Your task to perform on an android device: manage bookmarks in the chrome app Image 0: 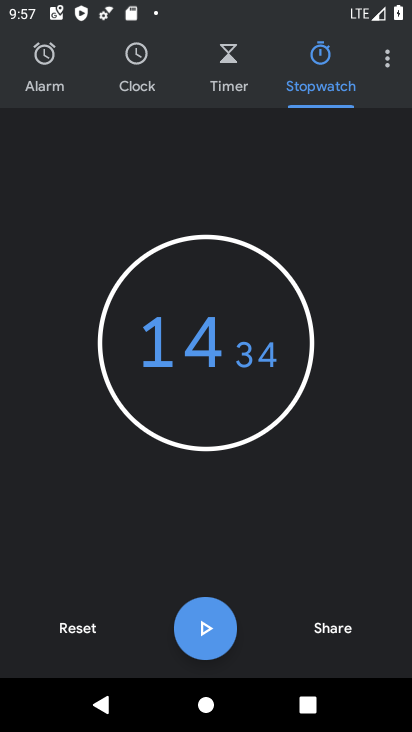
Step 0: press home button
Your task to perform on an android device: manage bookmarks in the chrome app Image 1: 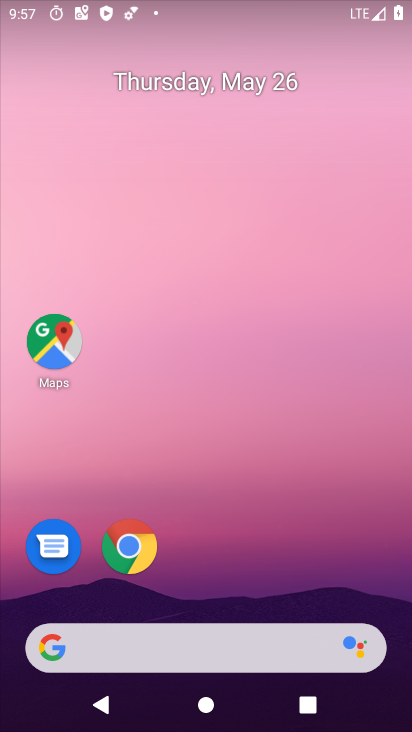
Step 1: drag from (372, 561) to (336, 188)
Your task to perform on an android device: manage bookmarks in the chrome app Image 2: 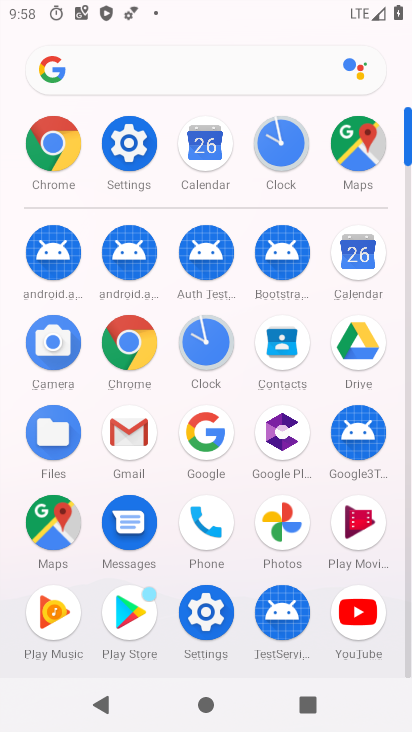
Step 2: click (125, 355)
Your task to perform on an android device: manage bookmarks in the chrome app Image 3: 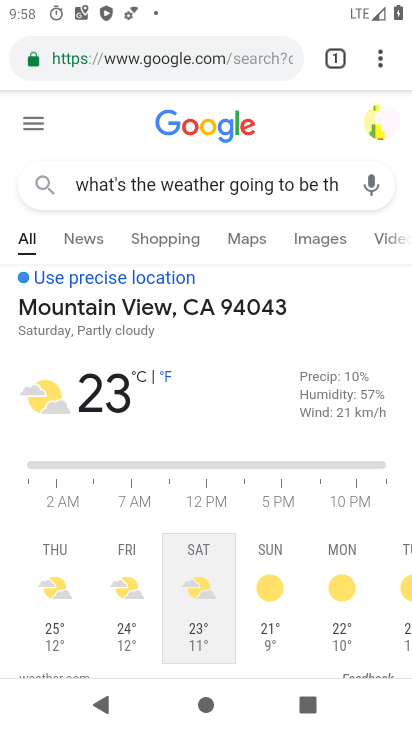
Step 3: drag from (385, 57) to (210, 217)
Your task to perform on an android device: manage bookmarks in the chrome app Image 4: 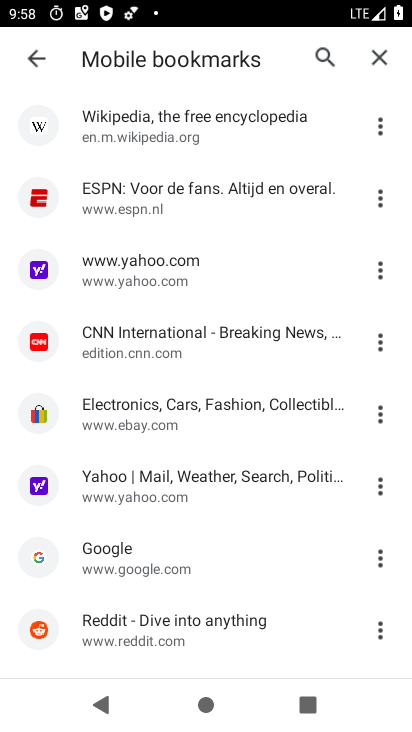
Step 4: click (382, 131)
Your task to perform on an android device: manage bookmarks in the chrome app Image 5: 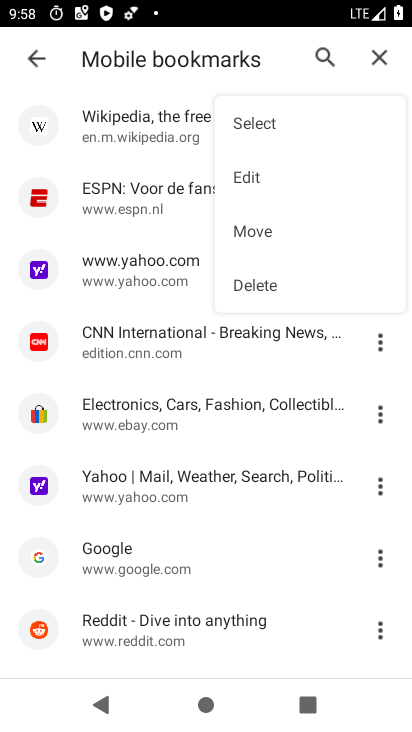
Step 5: click (244, 287)
Your task to perform on an android device: manage bookmarks in the chrome app Image 6: 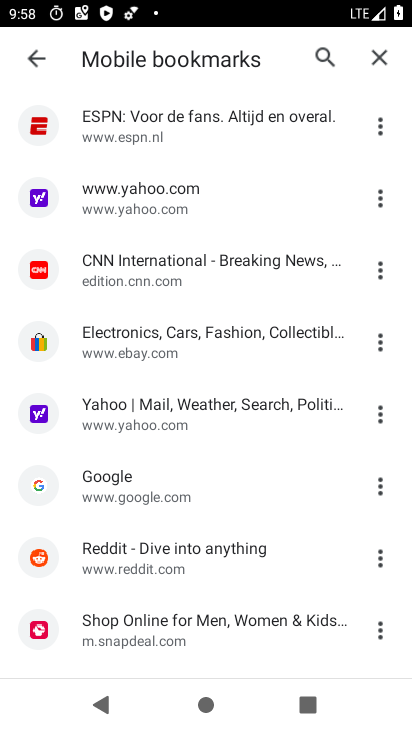
Step 6: task complete